Your task to perform on an android device: change alarm snooze length Image 0: 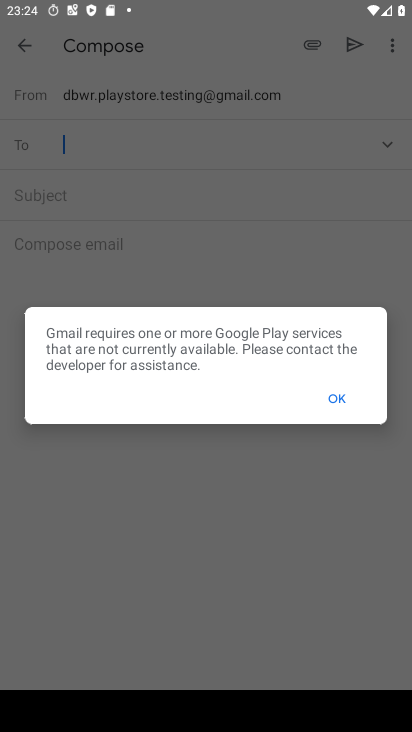
Step 0: press home button
Your task to perform on an android device: change alarm snooze length Image 1: 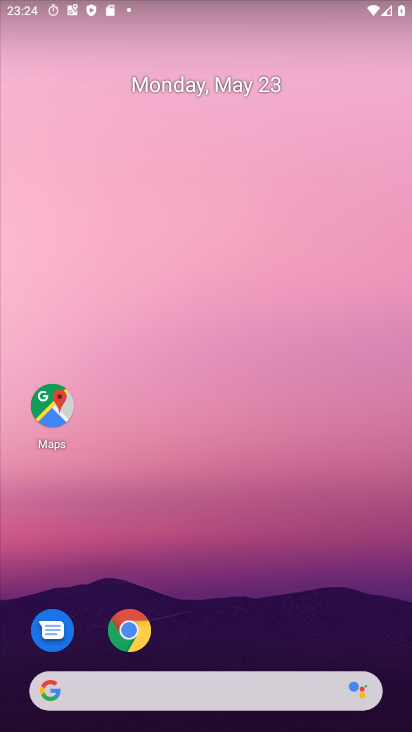
Step 1: drag from (268, 656) to (257, 0)
Your task to perform on an android device: change alarm snooze length Image 2: 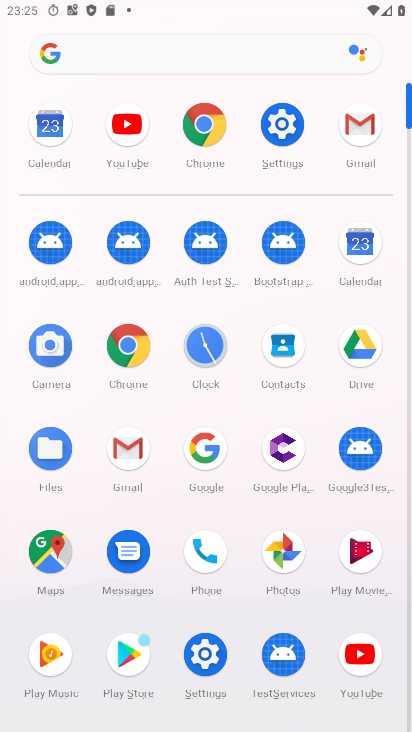
Step 2: click (199, 345)
Your task to perform on an android device: change alarm snooze length Image 3: 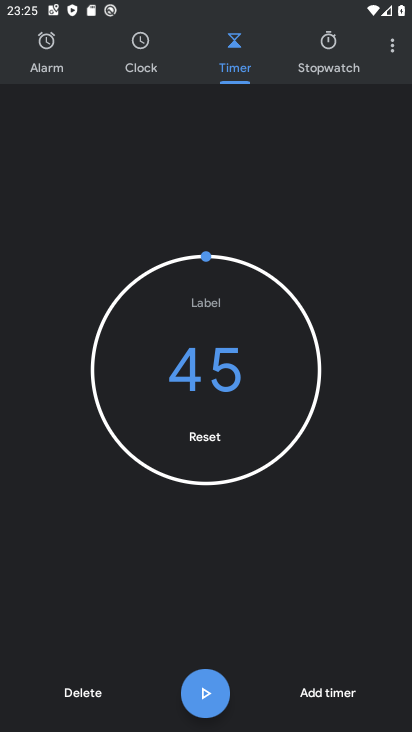
Step 3: click (392, 50)
Your task to perform on an android device: change alarm snooze length Image 4: 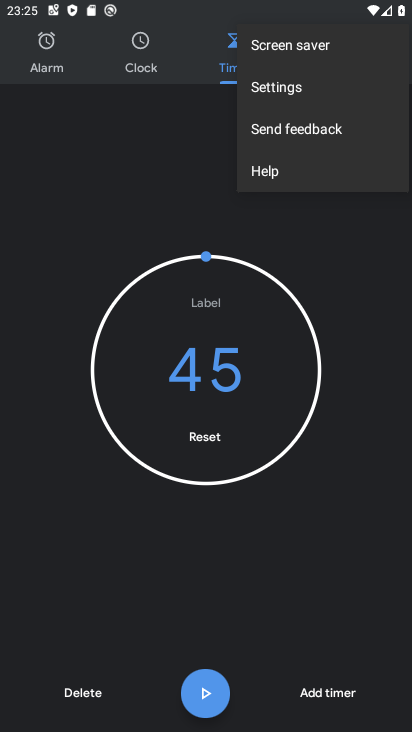
Step 4: click (273, 88)
Your task to perform on an android device: change alarm snooze length Image 5: 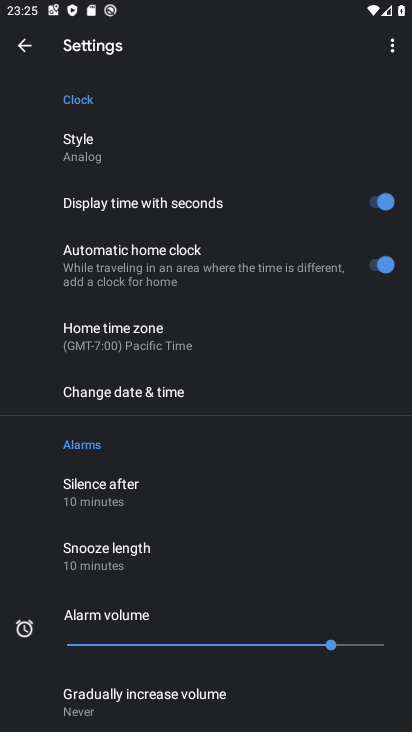
Step 5: click (94, 554)
Your task to perform on an android device: change alarm snooze length Image 6: 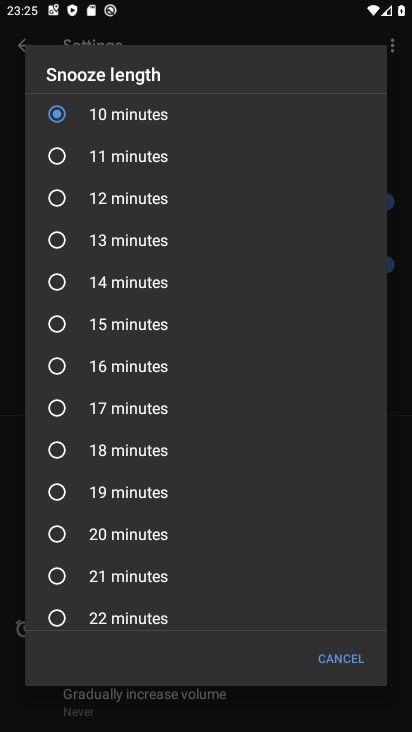
Step 6: drag from (137, 188) to (136, 488)
Your task to perform on an android device: change alarm snooze length Image 7: 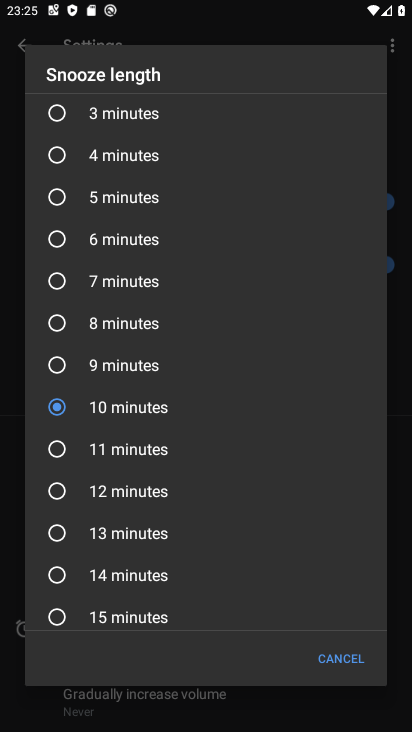
Step 7: click (61, 205)
Your task to perform on an android device: change alarm snooze length Image 8: 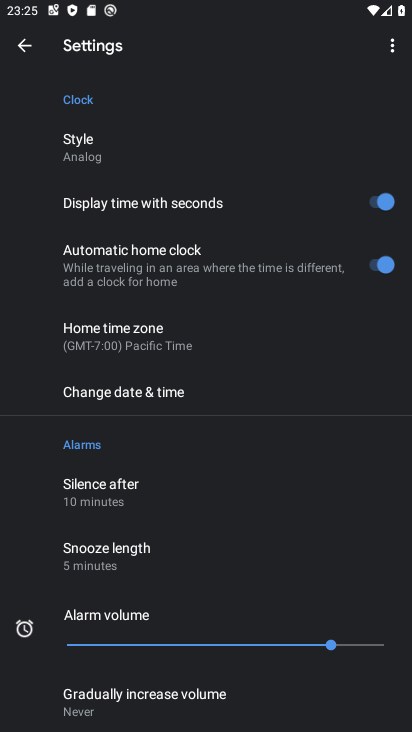
Step 8: task complete